Your task to perform on an android device: change alarm snooze length Image 0: 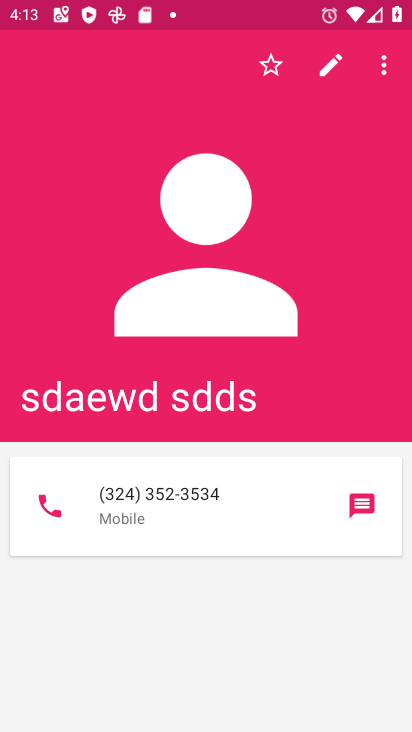
Step 0: press home button
Your task to perform on an android device: change alarm snooze length Image 1: 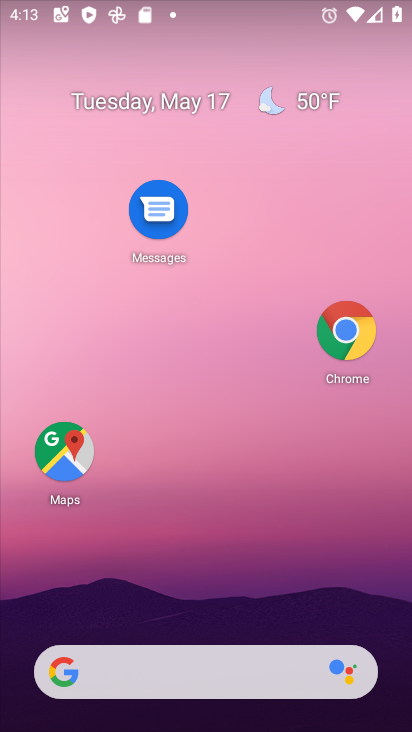
Step 1: drag from (219, 600) to (173, 127)
Your task to perform on an android device: change alarm snooze length Image 2: 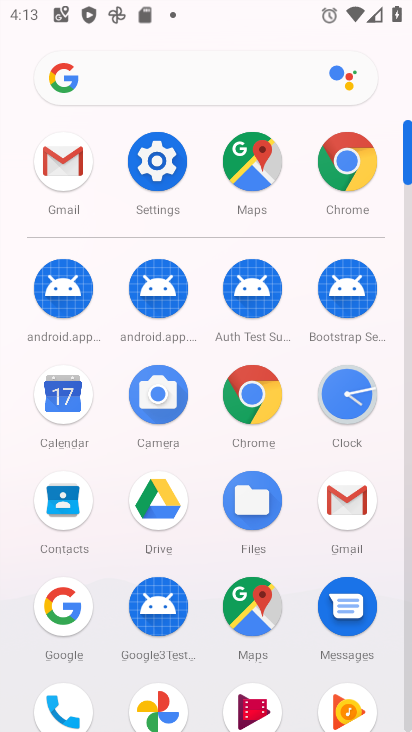
Step 2: click (142, 168)
Your task to perform on an android device: change alarm snooze length Image 3: 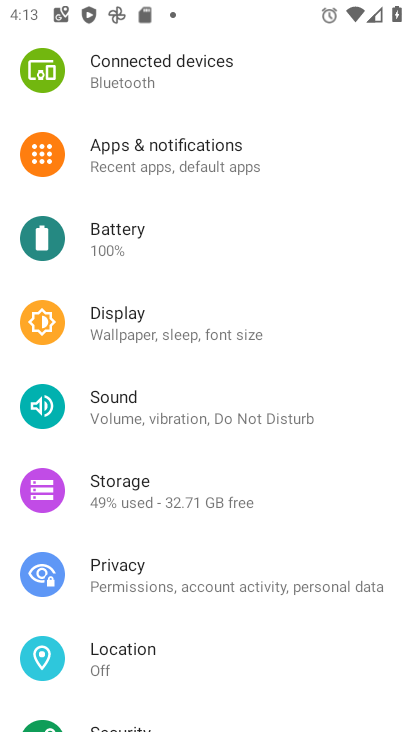
Step 3: press home button
Your task to perform on an android device: change alarm snooze length Image 4: 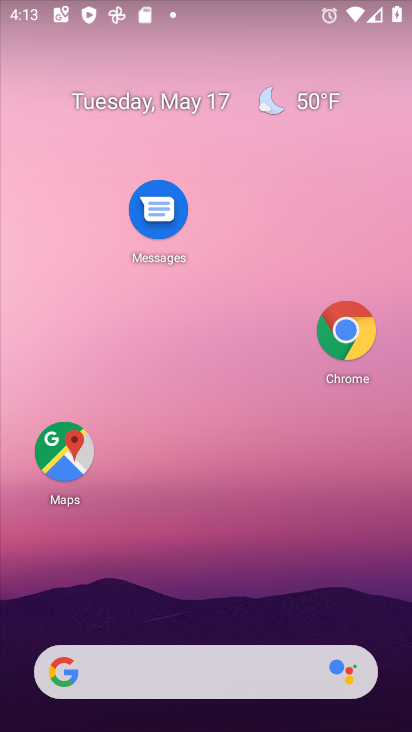
Step 4: drag from (212, 589) to (196, 88)
Your task to perform on an android device: change alarm snooze length Image 5: 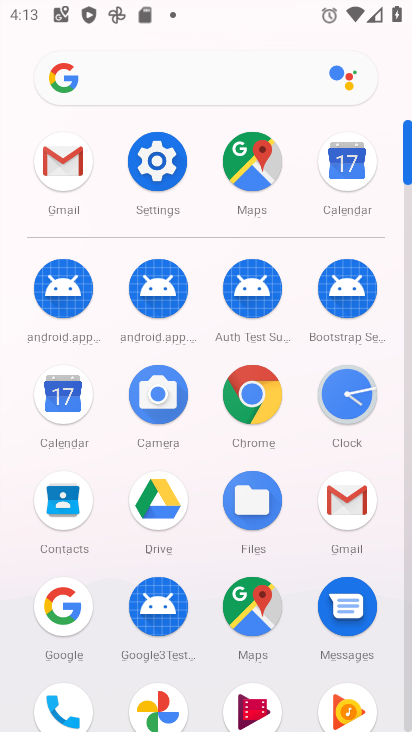
Step 5: click (337, 378)
Your task to perform on an android device: change alarm snooze length Image 6: 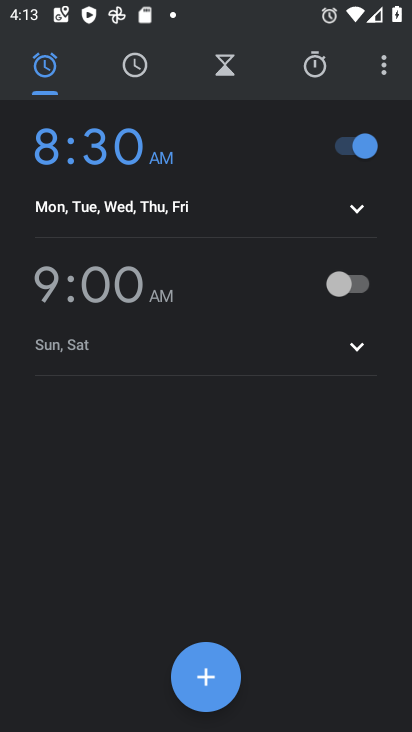
Step 6: click (376, 68)
Your task to perform on an android device: change alarm snooze length Image 7: 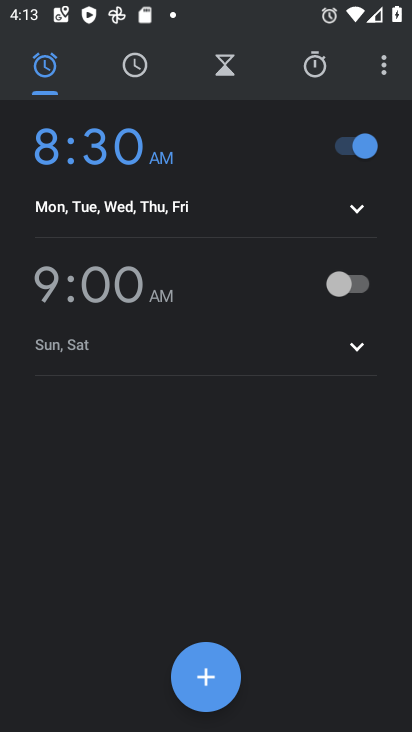
Step 7: click (376, 71)
Your task to perform on an android device: change alarm snooze length Image 8: 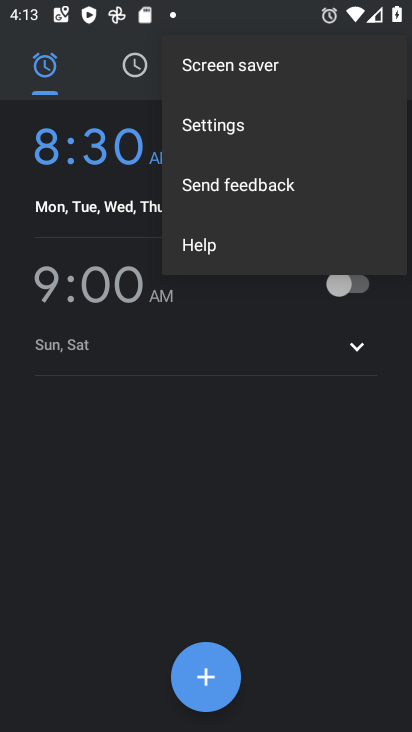
Step 8: click (245, 135)
Your task to perform on an android device: change alarm snooze length Image 9: 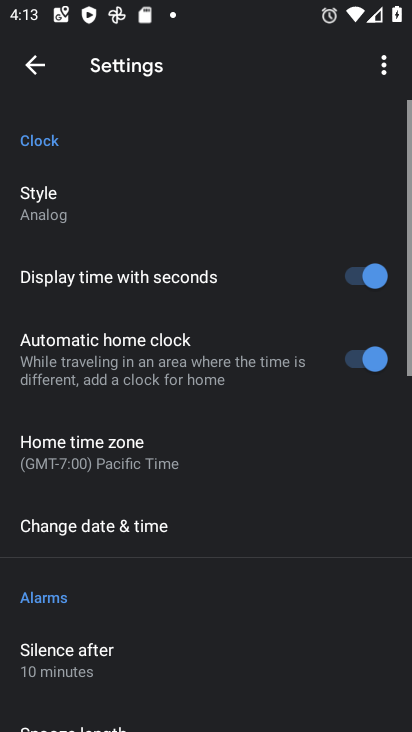
Step 9: drag from (200, 523) to (96, 160)
Your task to perform on an android device: change alarm snooze length Image 10: 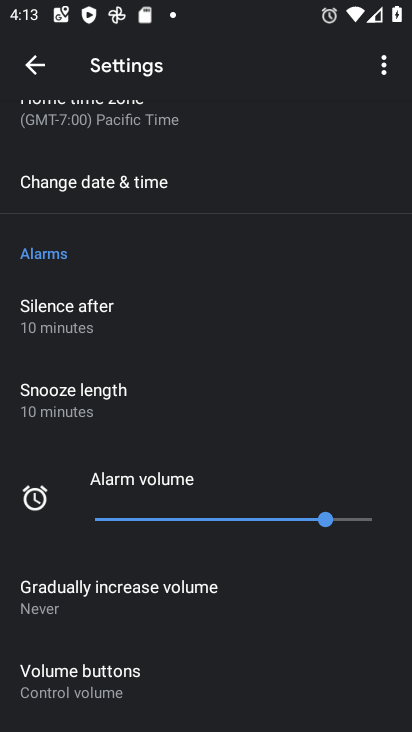
Step 10: drag from (151, 466) to (135, 393)
Your task to perform on an android device: change alarm snooze length Image 11: 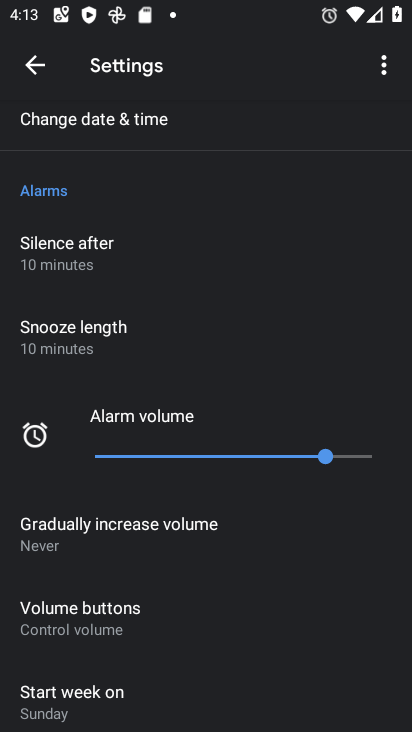
Step 11: click (127, 367)
Your task to perform on an android device: change alarm snooze length Image 12: 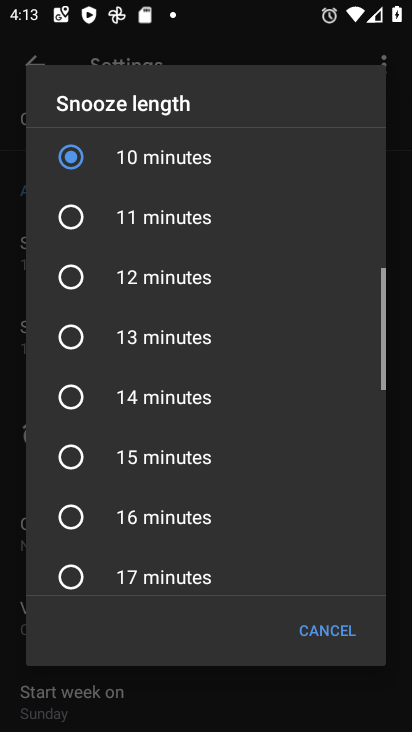
Step 12: click (131, 386)
Your task to perform on an android device: change alarm snooze length Image 13: 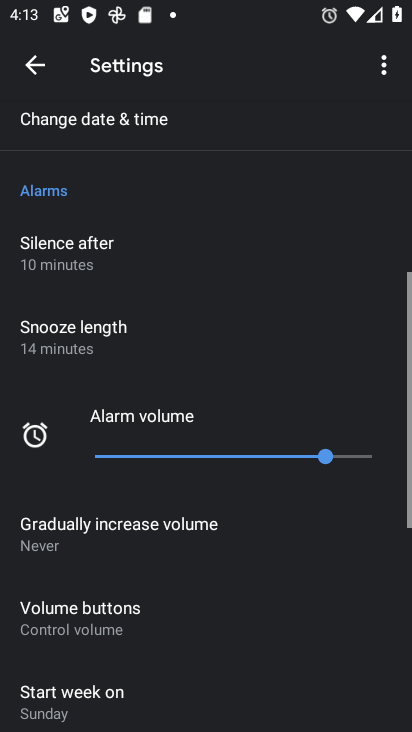
Step 13: task complete